Your task to perform on an android device: stop showing notifications on the lock screen Image 0: 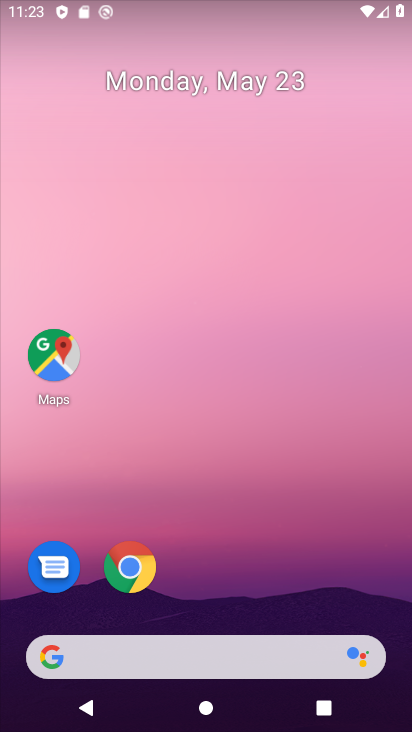
Step 0: drag from (314, 600) to (312, 100)
Your task to perform on an android device: stop showing notifications on the lock screen Image 1: 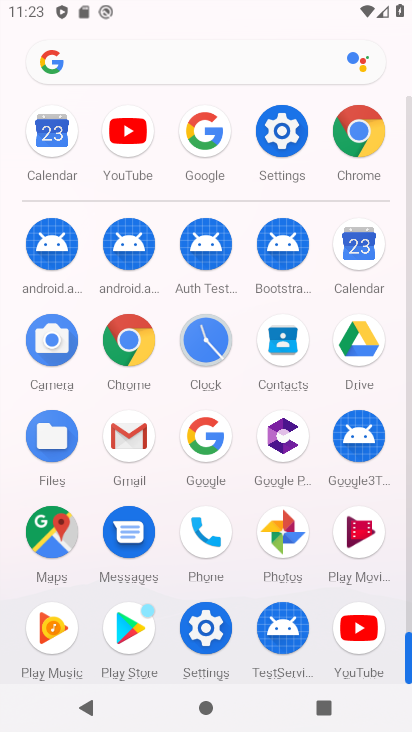
Step 1: click (289, 123)
Your task to perform on an android device: stop showing notifications on the lock screen Image 2: 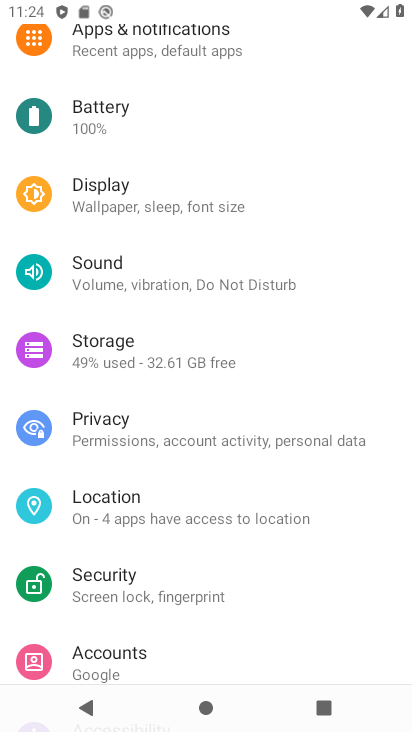
Step 2: click (177, 49)
Your task to perform on an android device: stop showing notifications on the lock screen Image 3: 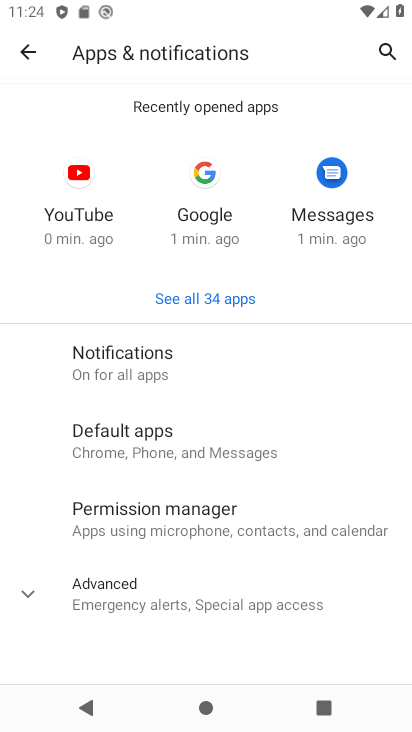
Step 3: click (163, 368)
Your task to perform on an android device: stop showing notifications on the lock screen Image 4: 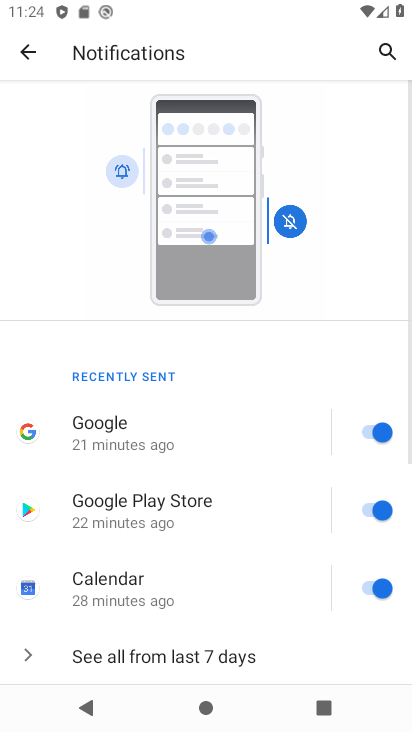
Step 4: drag from (189, 603) to (188, 201)
Your task to perform on an android device: stop showing notifications on the lock screen Image 5: 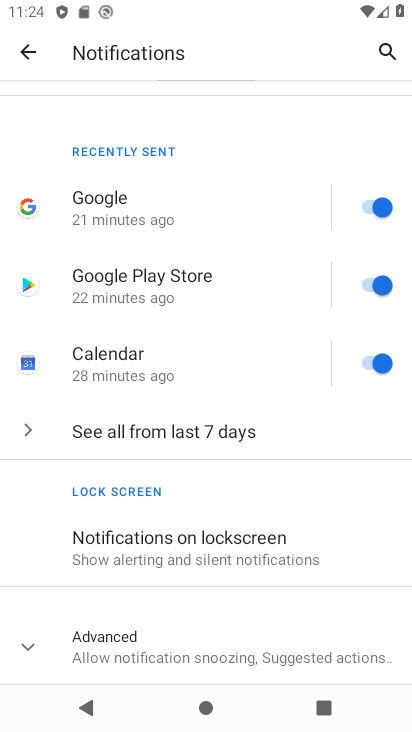
Step 5: click (158, 551)
Your task to perform on an android device: stop showing notifications on the lock screen Image 6: 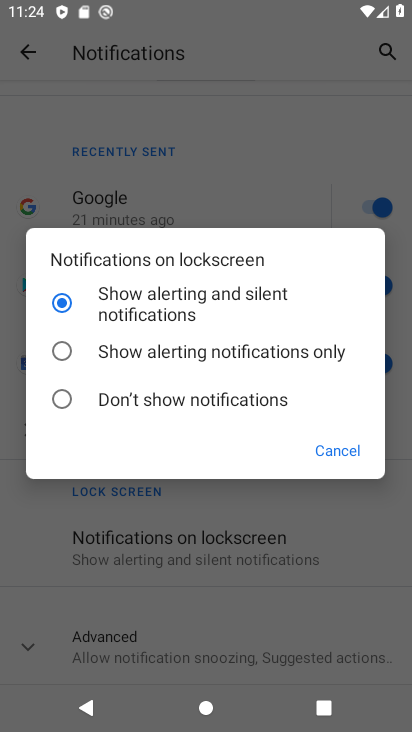
Step 6: click (121, 397)
Your task to perform on an android device: stop showing notifications on the lock screen Image 7: 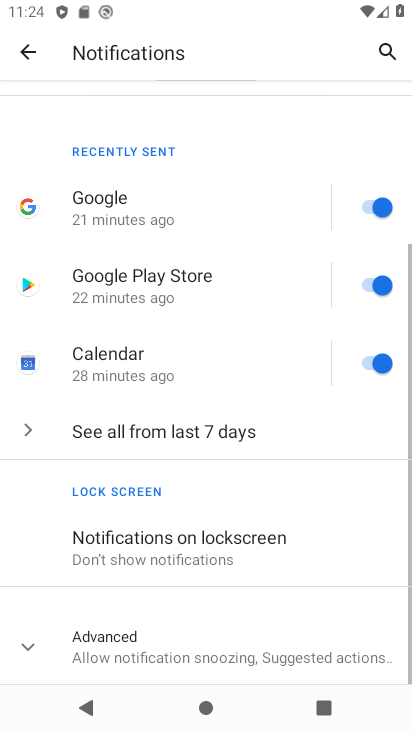
Step 7: task complete